Your task to perform on an android device: open a new tab in the chrome app Image 0: 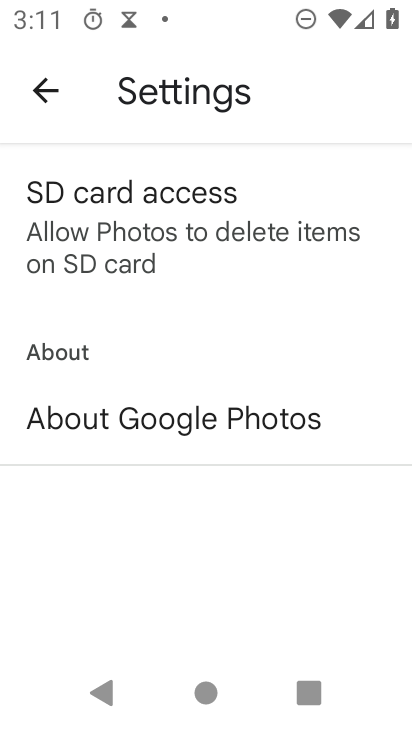
Step 0: press home button
Your task to perform on an android device: open a new tab in the chrome app Image 1: 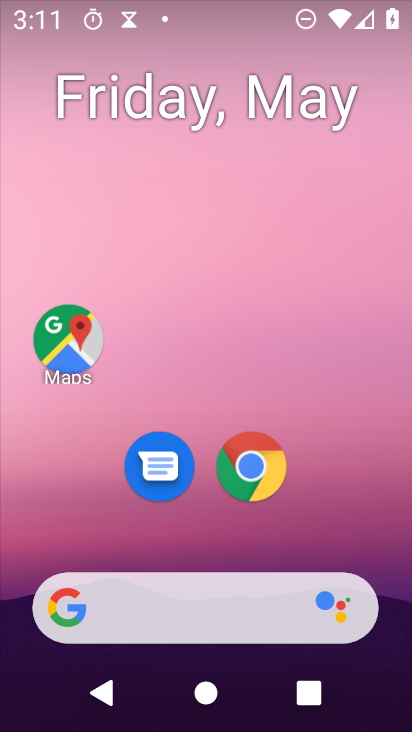
Step 1: drag from (332, 517) to (317, 64)
Your task to perform on an android device: open a new tab in the chrome app Image 2: 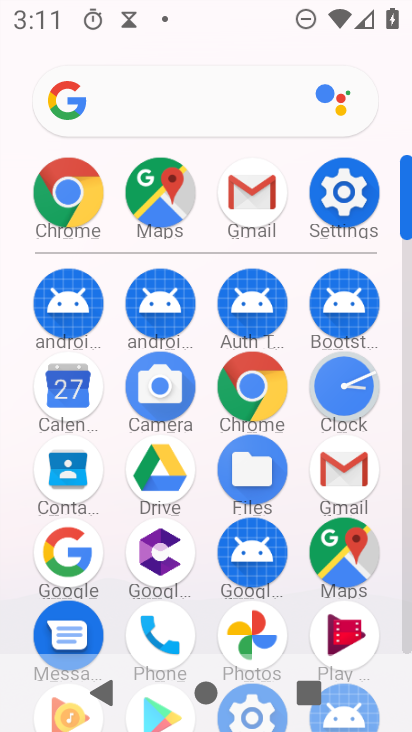
Step 2: click (57, 203)
Your task to perform on an android device: open a new tab in the chrome app Image 3: 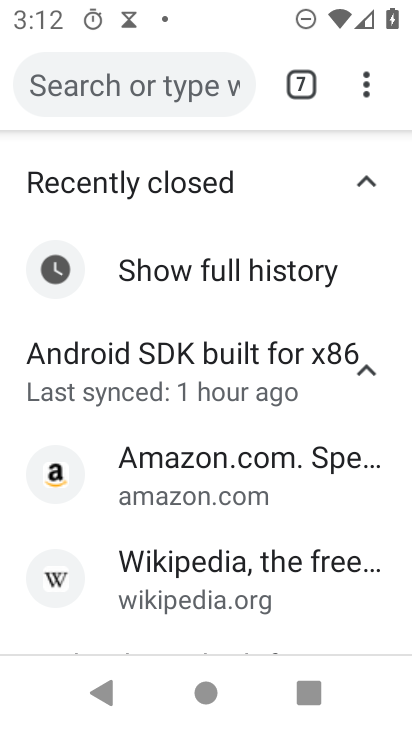
Step 3: task complete